Your task to perform on an android device: turn off sleep mode Image 0: 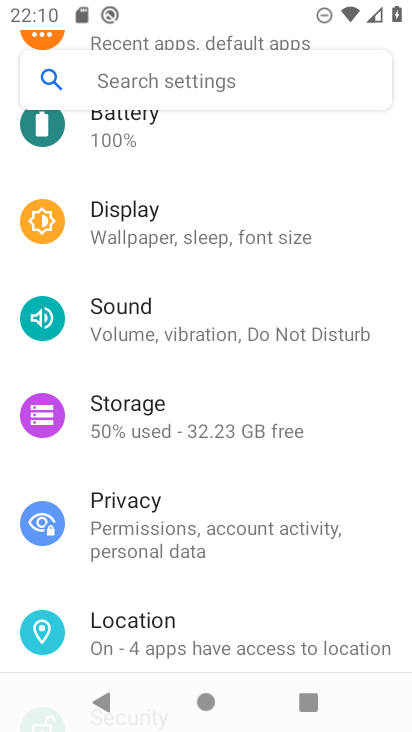
Step 0: press home button
Your task to perform on an android device: turn off sleep mode Image 1: 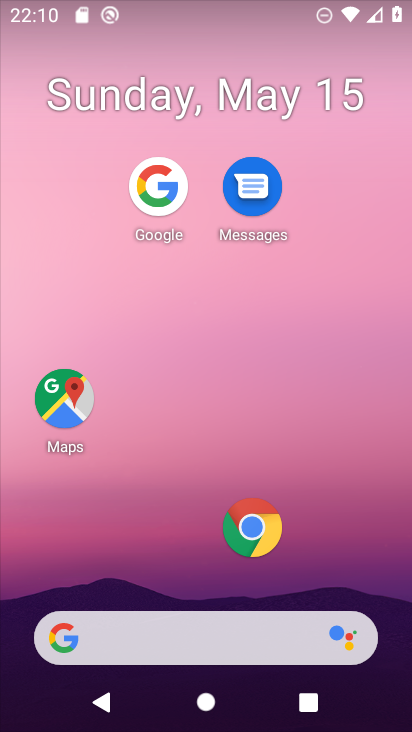
Step 1: drag from (153, 641) to (300, 191)
Your task to perform on an android device: turn off sleep mode Image 2: 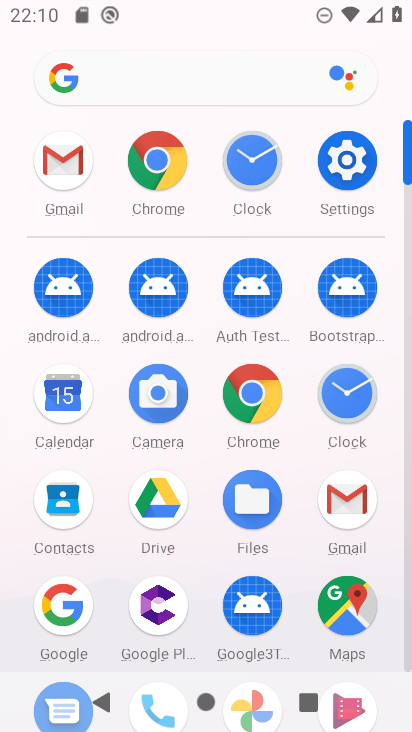
Step 2: click (341, 171)
Your task to perform on an android device: turn off sleep mode Image 3: 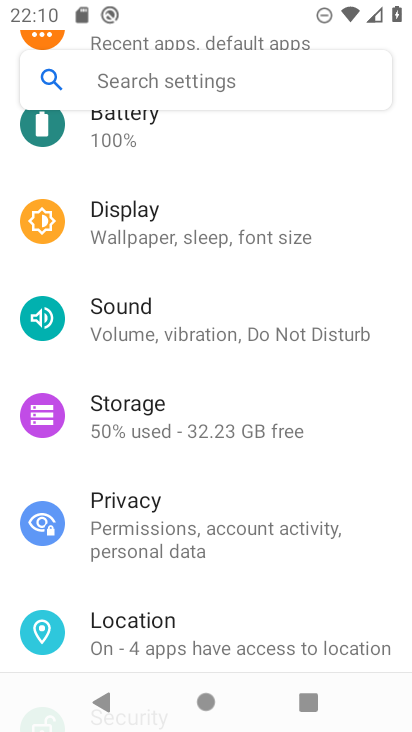
Step 3: click (215, 233)
Your task to perform on an android device: turn off sleep mode Image 4: 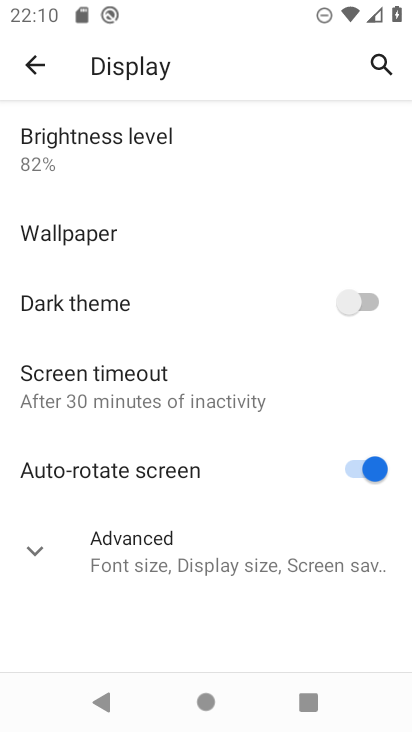
Step 4: click (114, 564)
Your task to perform on an android device: turn off sleep mode Image 5: 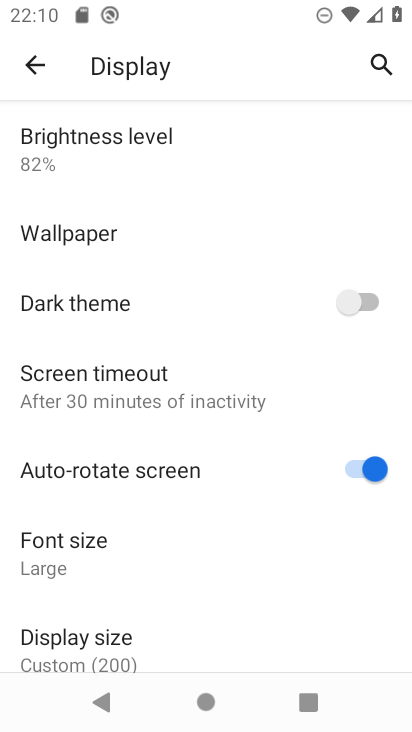
Step 5: task complete